Your task to perform on an android device: star an email in the gmail app Image 0: 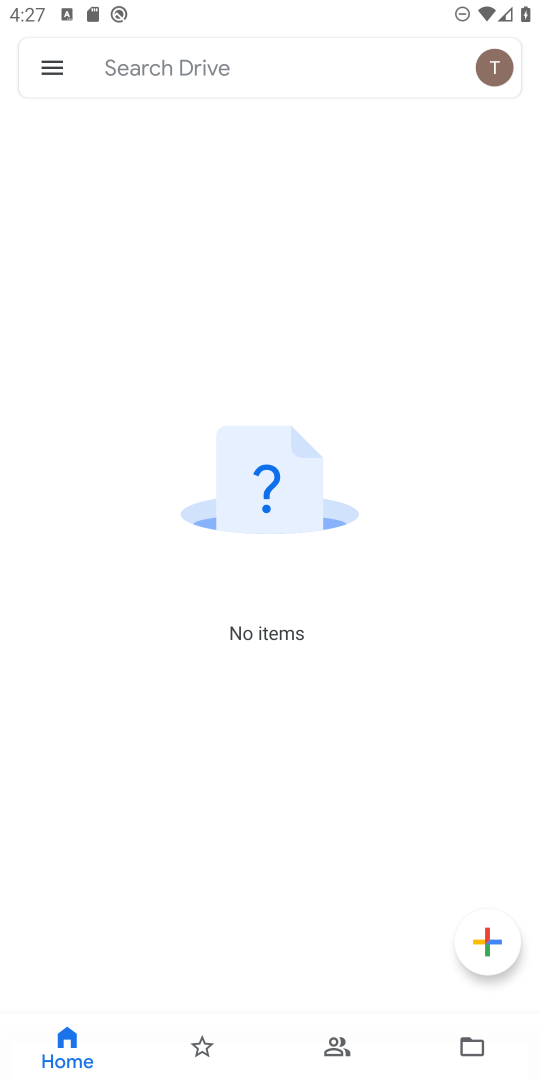
Step 0: press home button
Your task to perform on an android device: star an email in the gmail app Image 1: 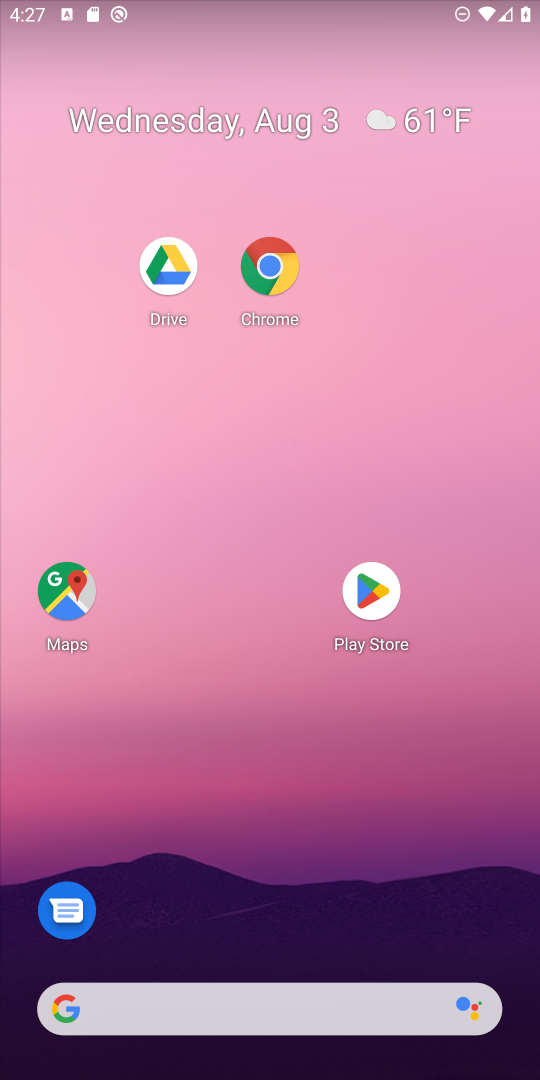
Step 1: drag from (238, 995) to (397, 2)
Your task to perform on an android device: star an email in the gmail app Image 2: 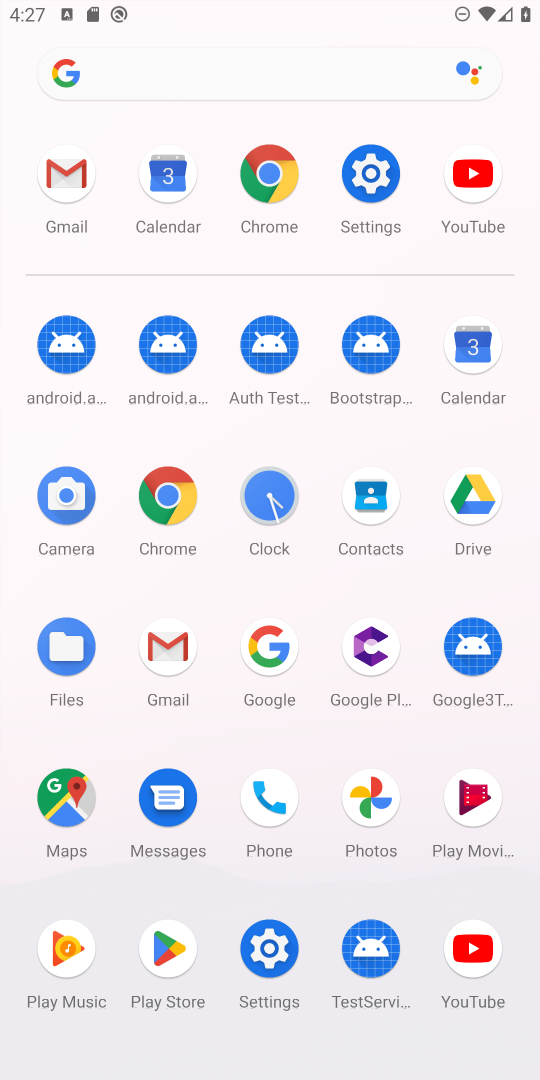
Step 2: click (167, 651)
Your task to perform on an android device: star an email in the gmail app Image 3: 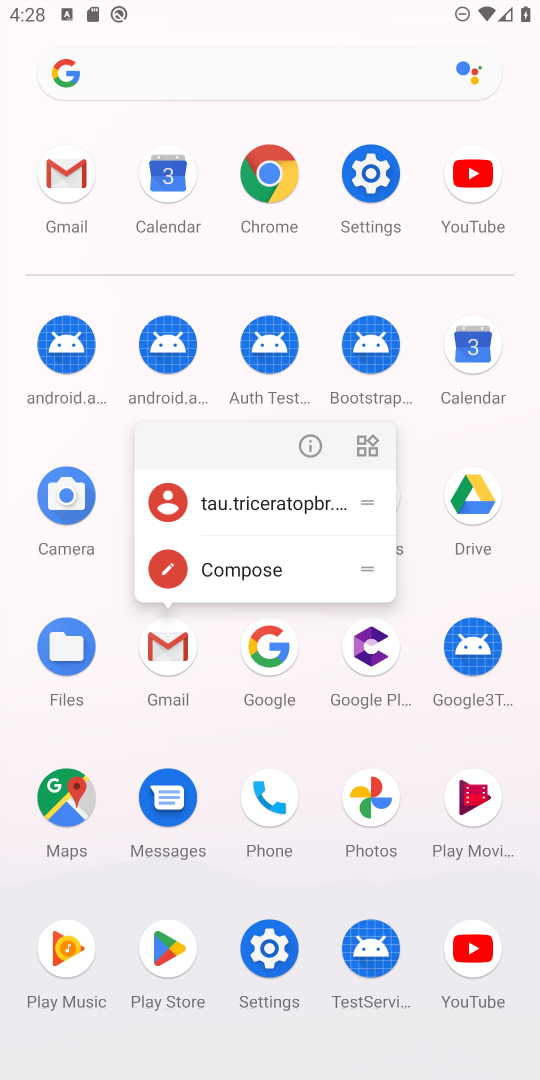
Step 3: click (167, 648)
Your task to perform on an android device: star an email in the gmail app Image 4: 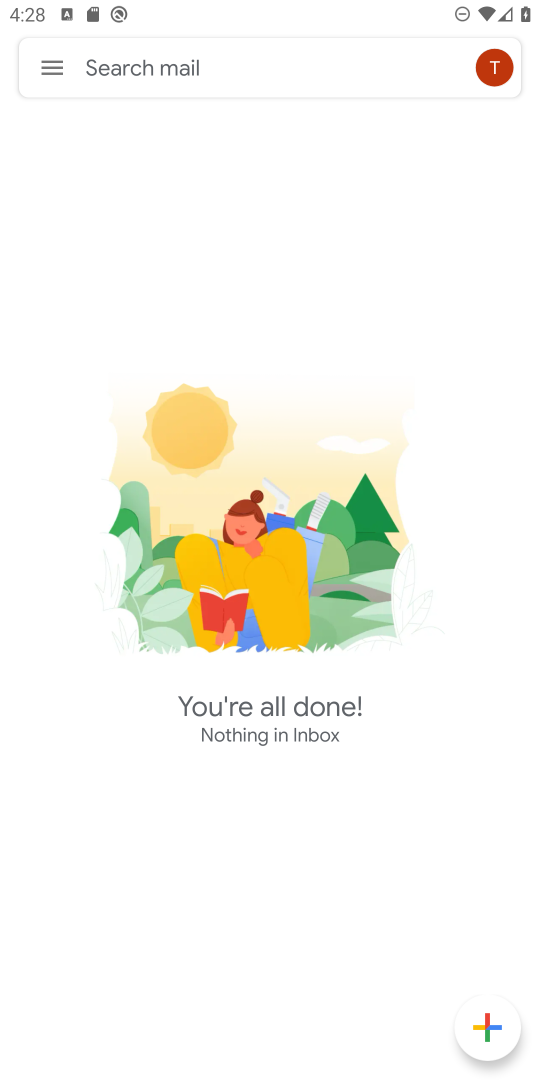
Step 4: click (54, 60)
Your task to perform on an android device: star an email in the gmail app Image 5: 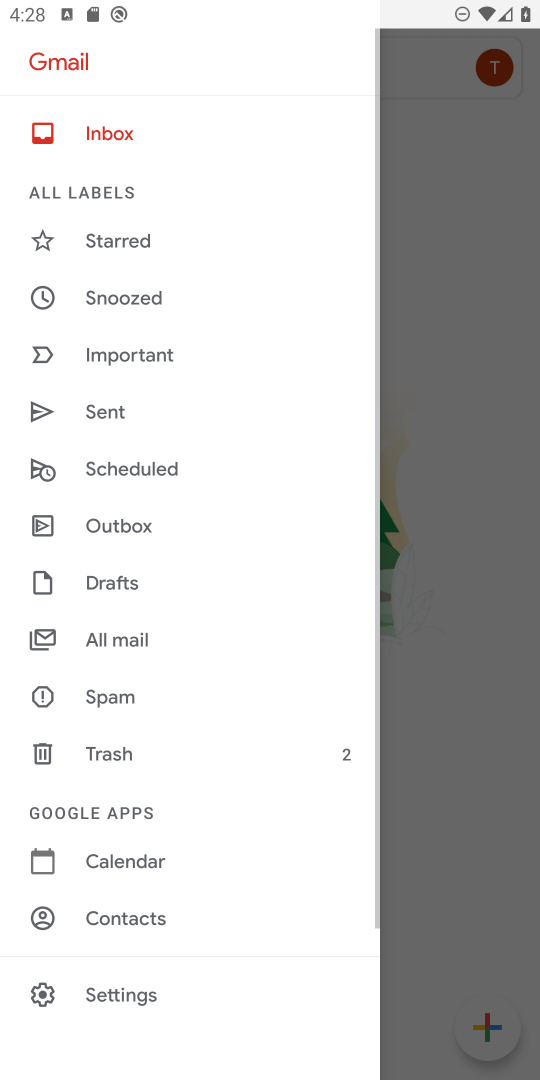
Step 5: click (122, 239)
Your task to perform on an android device: star an email in the gmail app Image 6: 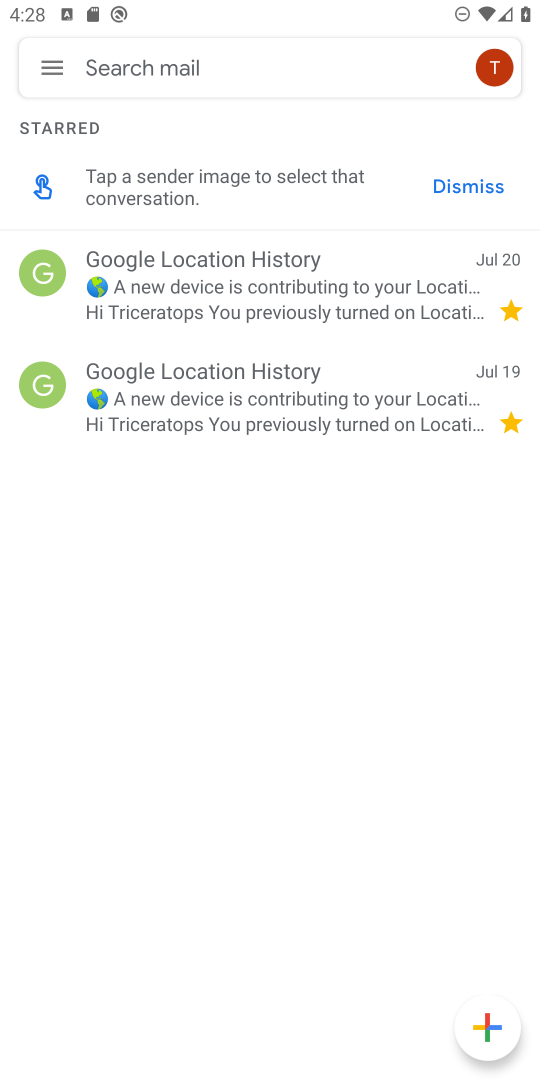
Step 6: task complete